Your task to perform on an android device: turn on javascript in the chrome app Image 0: 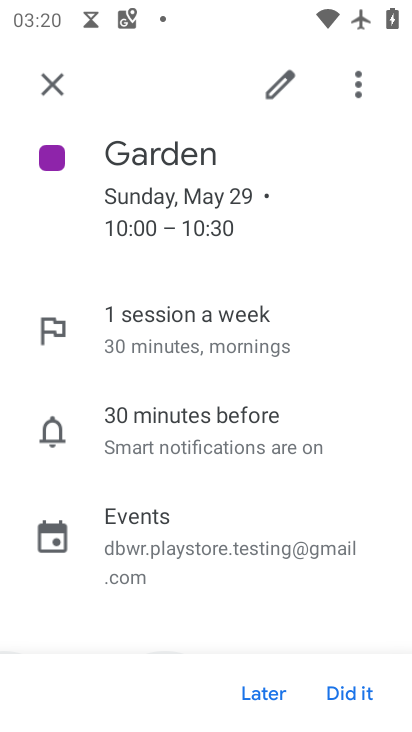
Step 0: press home button
Your task to perform on an android device: turn on javascript in the chrome app Image 1: 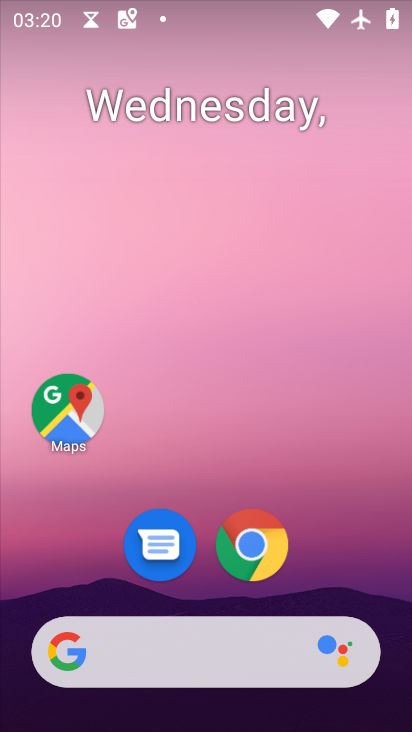
Step 1: click (243, 566)
Your task to perform on an android device: turn on javascript in the chrome app Image 2: 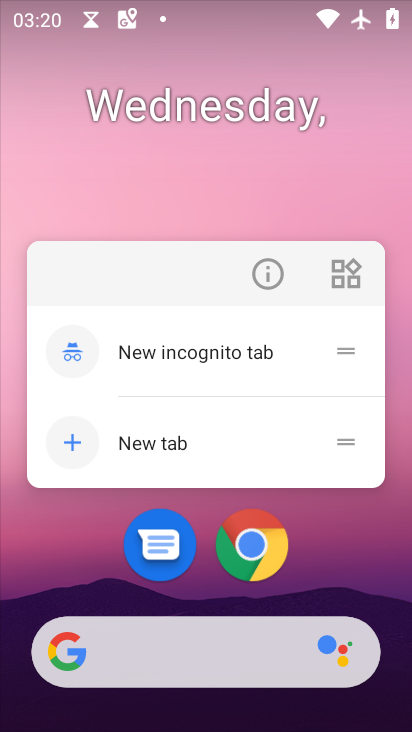
Step 2: click (253, 567)
Your task to perform on an android device: turn on javascript in the chrome app Image 3: 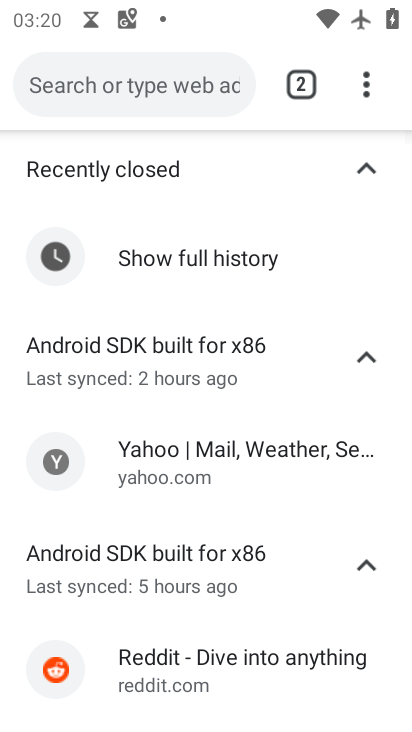
Step 3: drag from (365, 96) to (184, 603)
Your task to perform on an android device: turn on javascript in the chrome app Image 4: 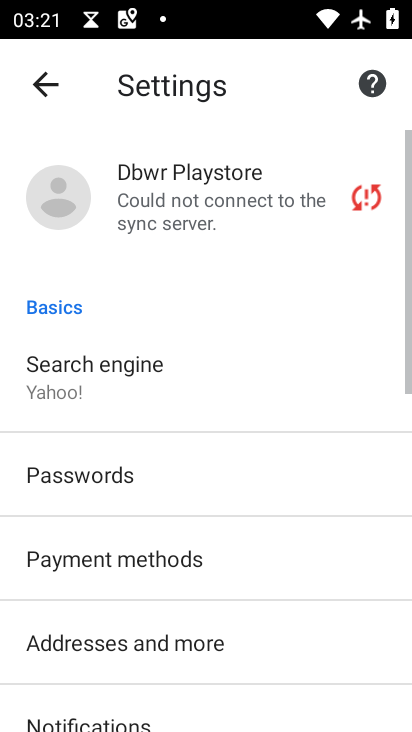
Step 4: drag from (177, 654) to (296, 275)
Your task to perform on an android device: turn on javascript in the chrome app Image 5: 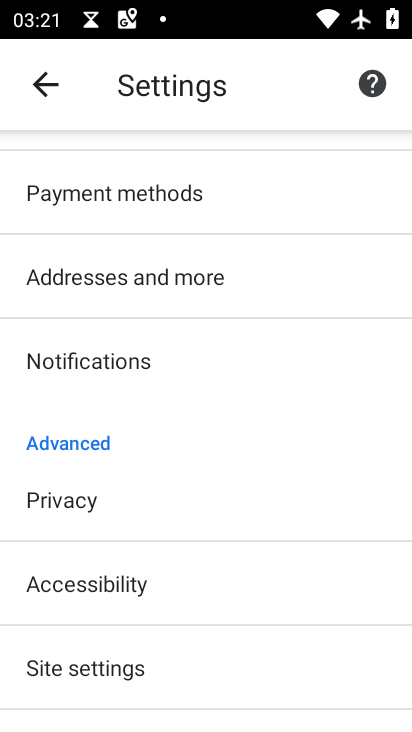
Step 5: click (117, 667)
Your task to perform on an android device: turn on javascript in the chrome app Image 6: 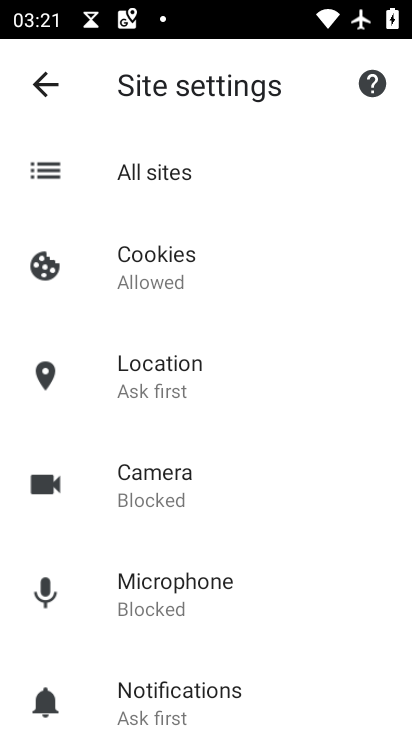
Step 6: drag from (217, 596) to (286, 235)
Your task to perform on an android device: turn on javascript in the chrome app Image 7: 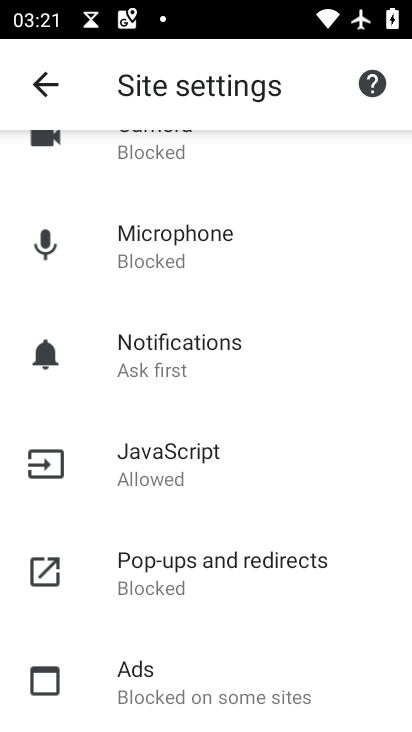
Step 7: click (165, 460)
Your task to perform on an android device: turn on javascript in the chrome app Image 8: 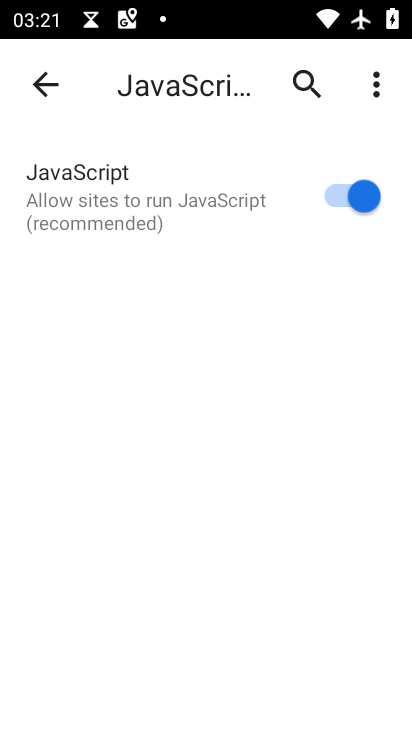
Step 8: task complete